Your task to perform on an android device: turn off smart reply in the gmail app Image 0: 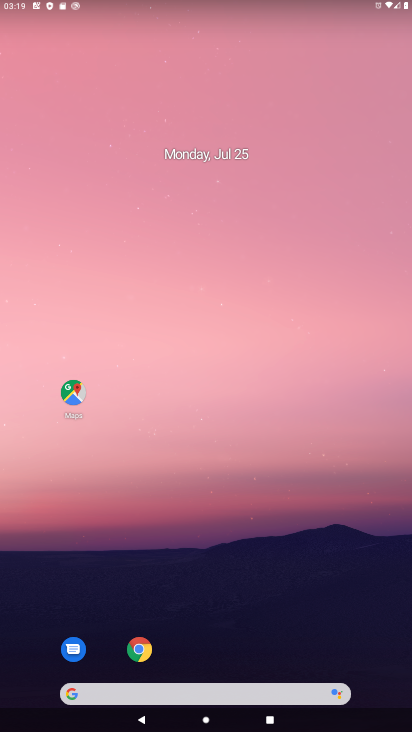
Step 0: drag from (386, 641) to (347, 168)
Your task to perform on an android device: turn off smart reply in the gmail app Image 1: 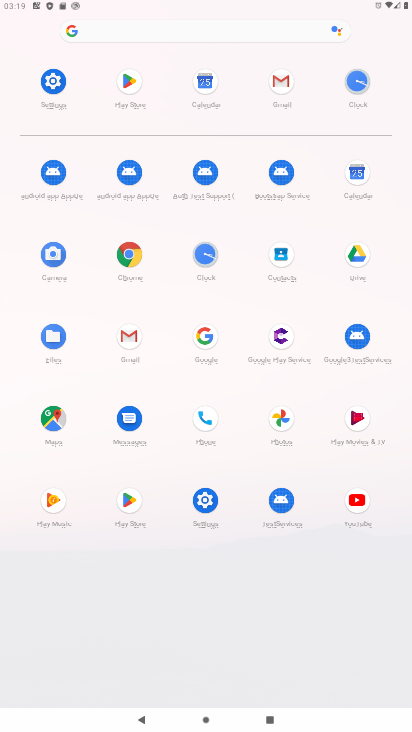
Step 1: click (128, 336)
Your task to perform on an android device: turn off smart reply in the gmail app Image 2: 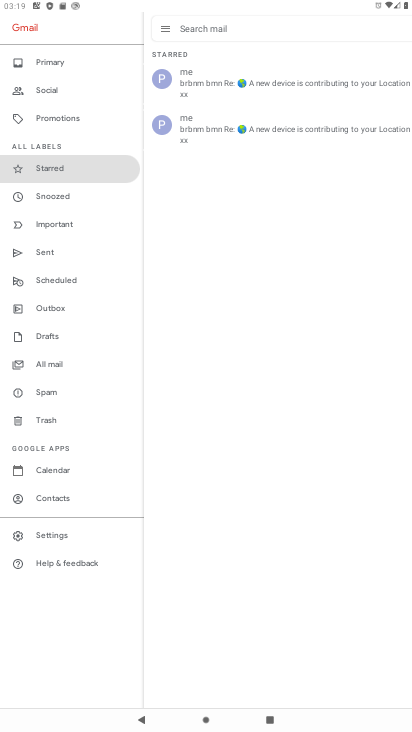
Step 2: click (50, 534)
Your task to perform on an android device: turn off smart reply in the gmail app Image 3: 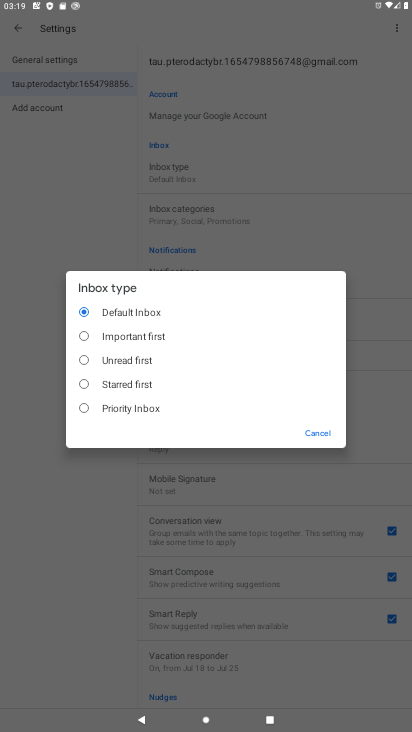
Step 3: click (316, 433)
Your task to perform on an android device: turn off smart reply in the gmail app Image 4: 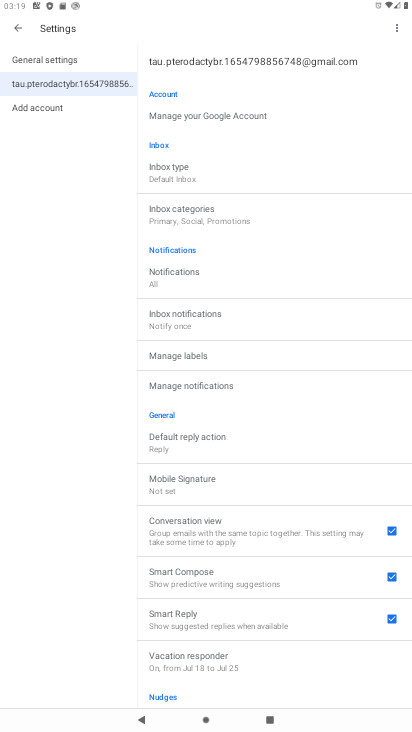
Step 4: click (392, 578)
Your task to perform on an android device: turn off smart reply in the gmail app Image 5: 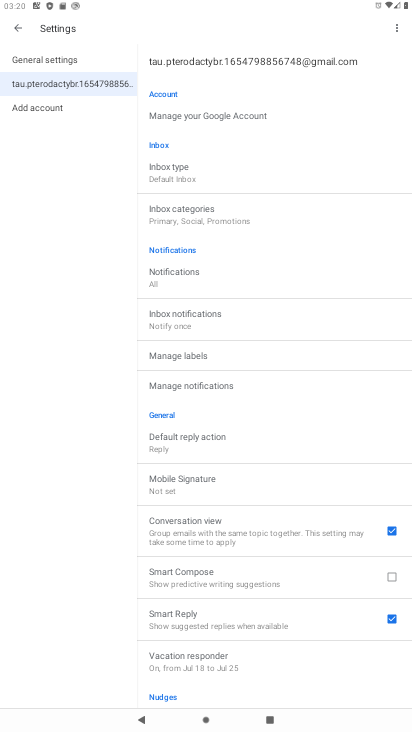
Step 5: task complete